Your task to perform on an android device: turn on improve location accuracy Image 0: 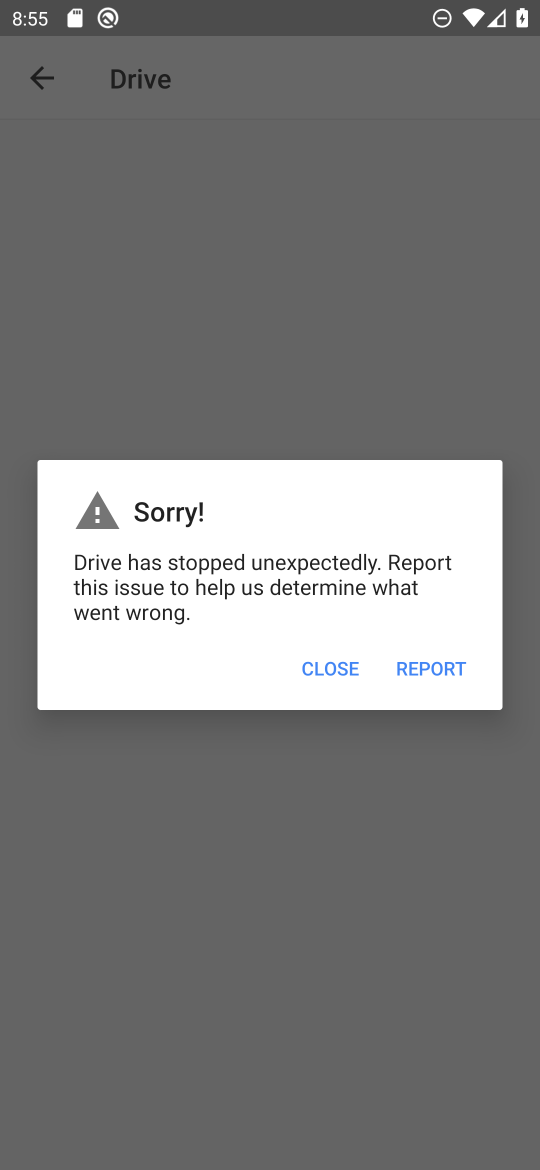
Step 0: press home button
Your task to perform on an android device: turn on improve location accuracy Image 1: 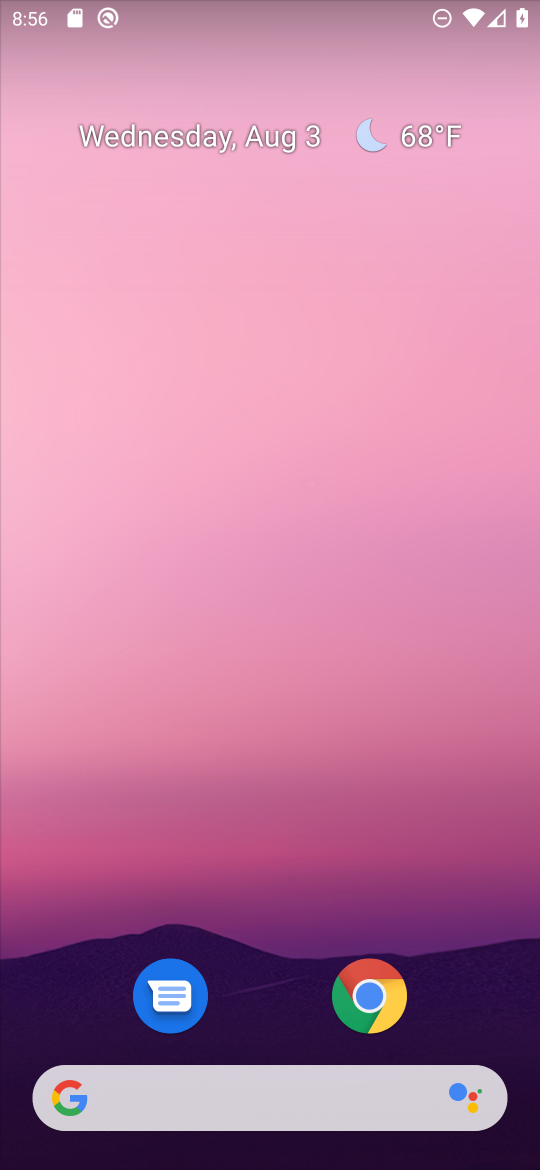
Step 1: drag from (291, 956) to (338, 4)
Your task to perform on an android device: turn on improve location accuracy Image 2: 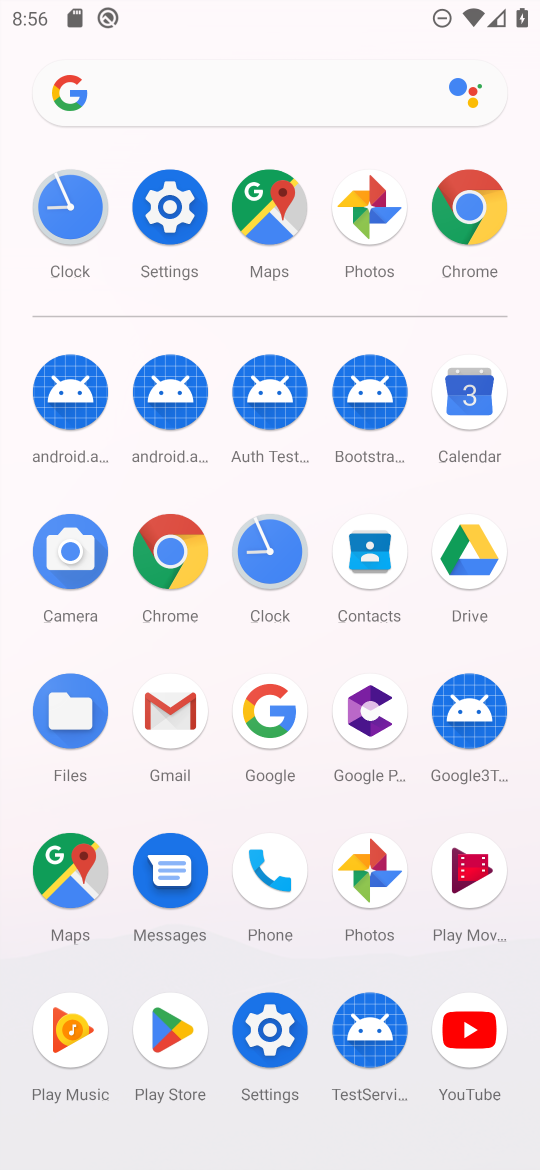
Step 2: click (177, 193)
Your task to perform on an android device: turn on improve location accuracy Image 3: 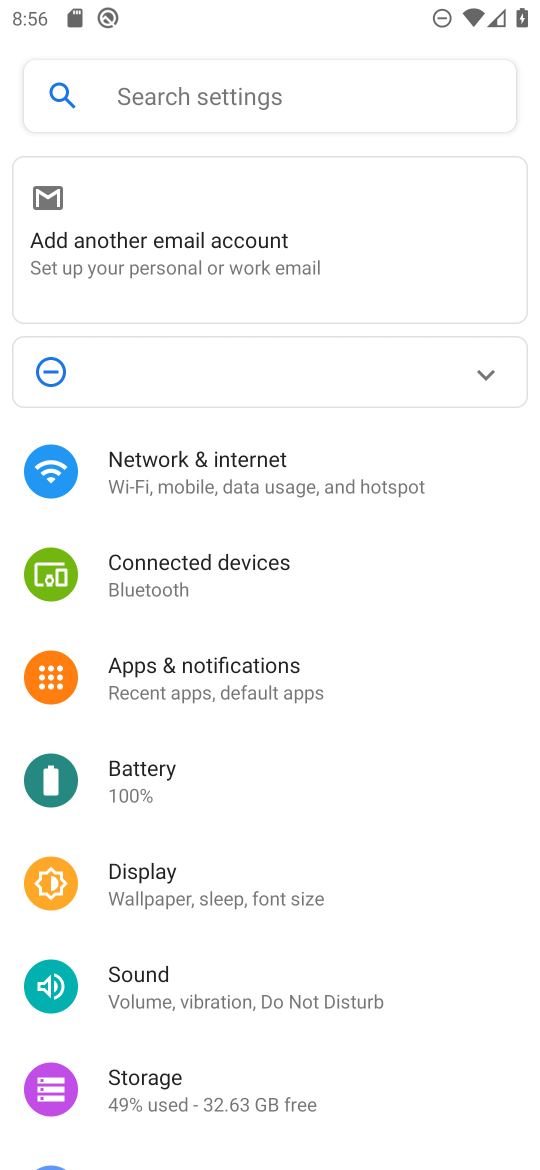
Step 3: drag from (267, 960) to (343, 54)
Your task to perform on an android device: turn on improve location accuracy Image 4: 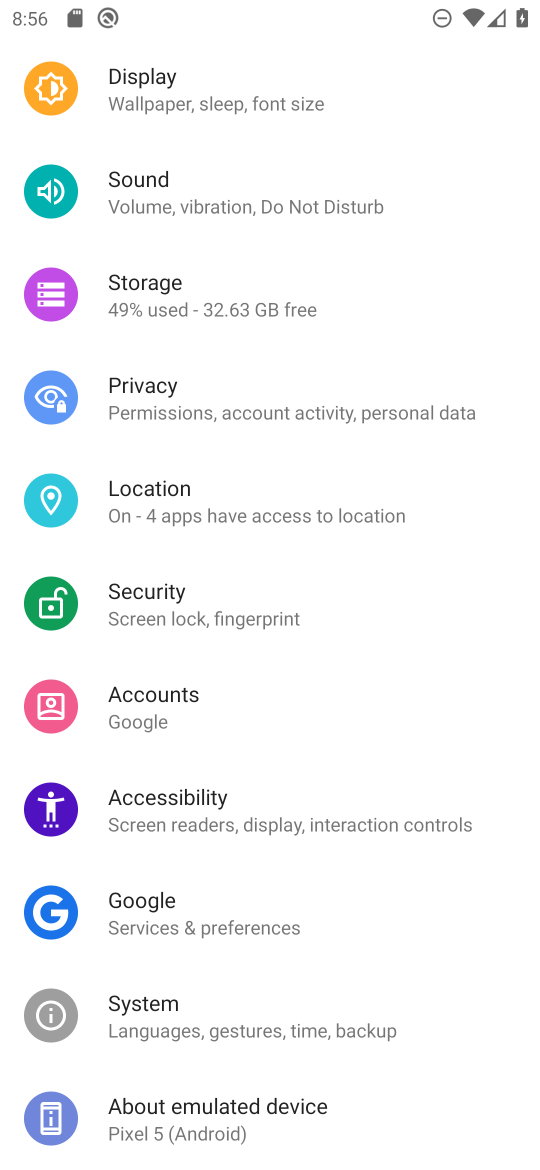
Step 4: click (276, 507)
Your task to perform on an android device: turn on improve location accuracy Image 5: 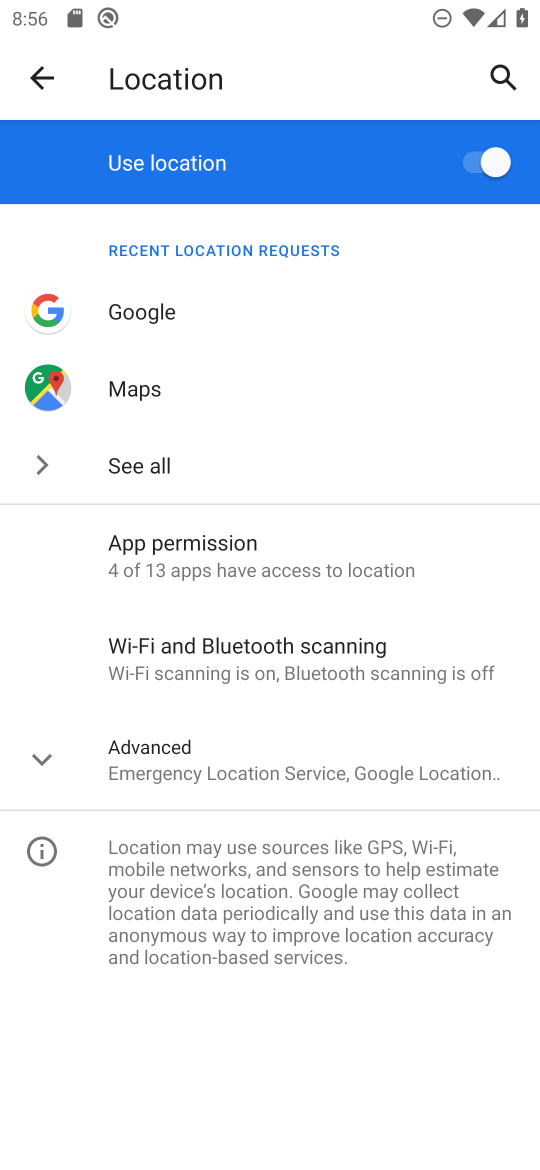
Step 5: click (41, 754)
Your task to perform on an android device: turn on improve location accuracy Image 6: 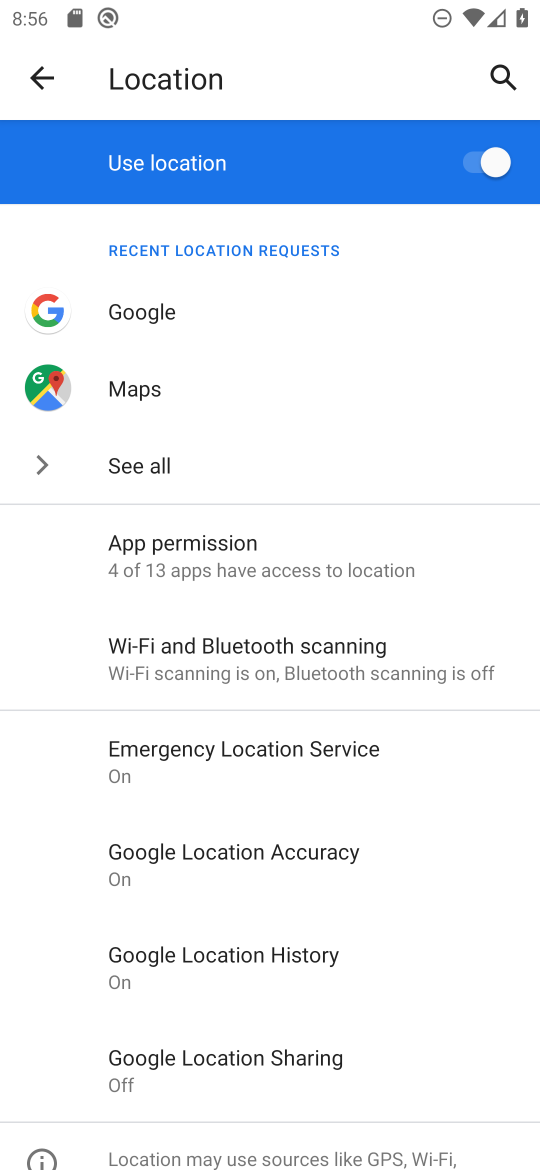
Step 6: click (208, 855)
Your task to perform on an android device: turn on improve location accuracy Image 7: 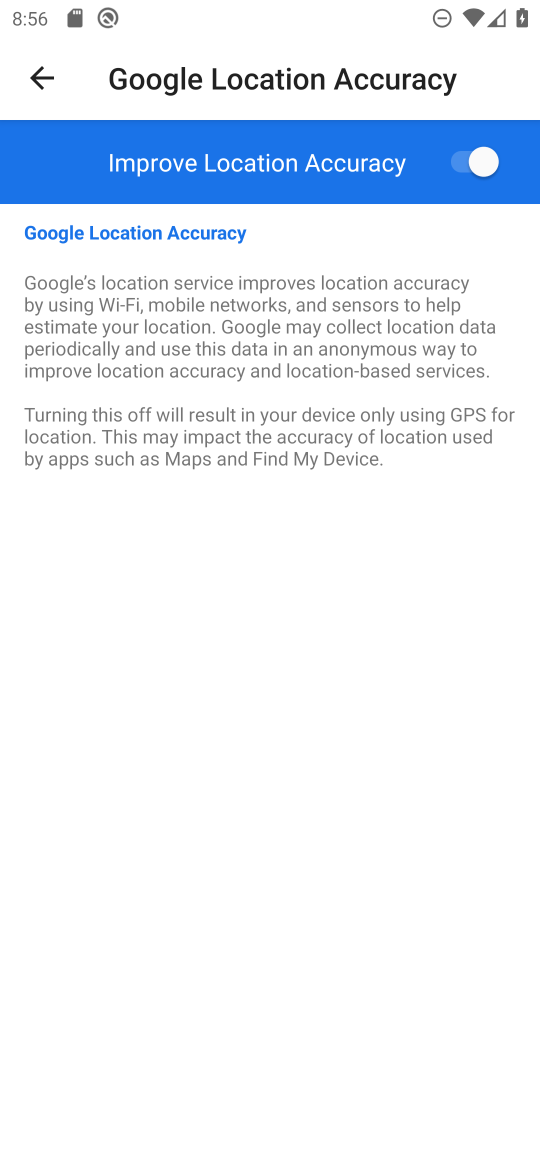
Step 7: task complete